Your task to perform on an android device: Open Google Maps and go to "Timeline" Image 0: 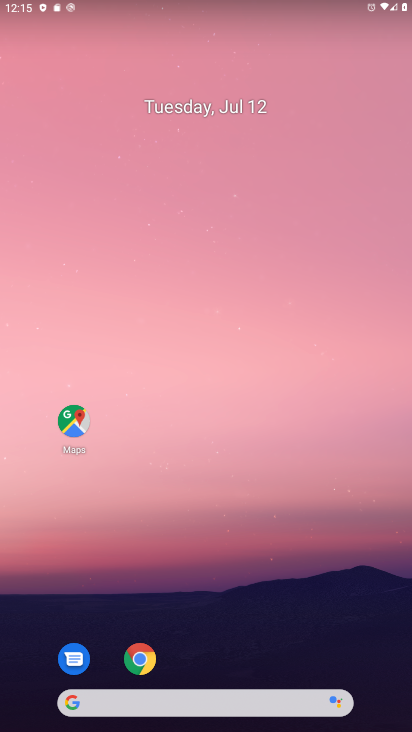
Step 0: drag from (237, 253) to (239, 214)
Your task to perform on an android device: Open Google Maps and go to "Timeline" Image 1: 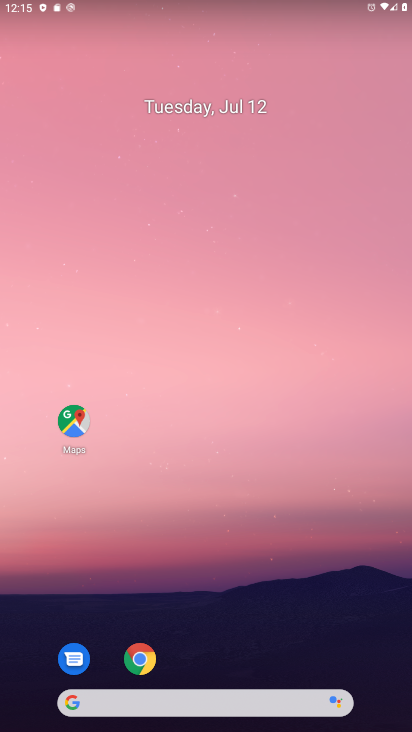
Step 1: click (73, 410)
Your task to perform on an android device: Open Google Maps and go to "Timeline" Image 2: 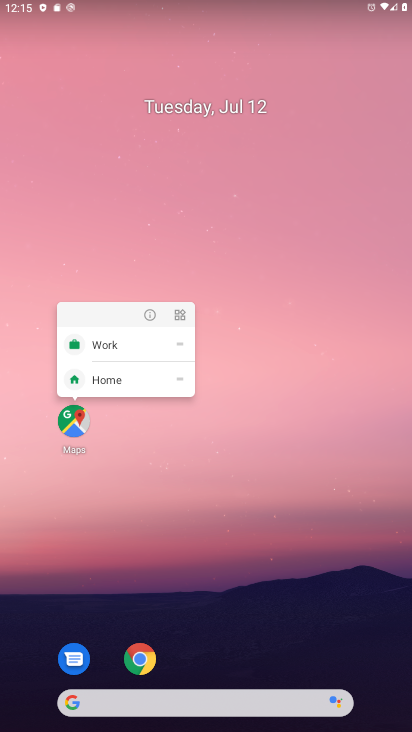
Step 2: click (147, 312)
Your task to perform on an android device: Open Google Maps and go to "Timeline" Image 3: 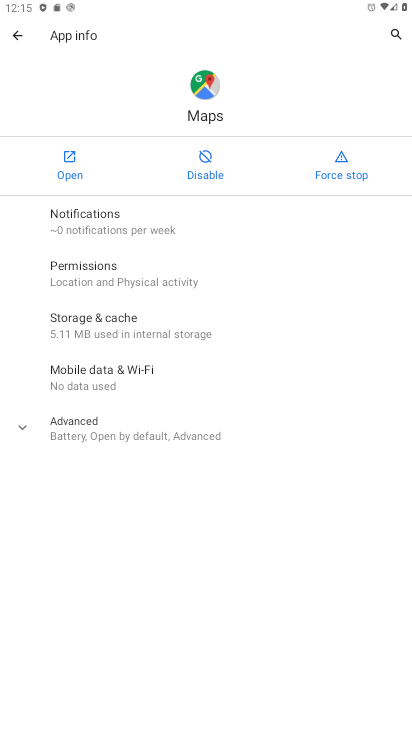
Step 3: click (63, 163)
Your task to perform on an android device: Open Google Maps and go to "Timeline" Image 4: 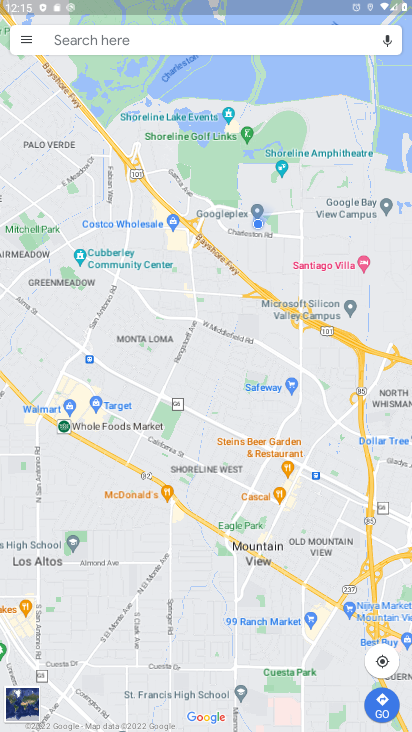
Step 4: click (24, 45)
Your task to perform on an android device: Open Google Maps and go to "Timeline" Image 5: 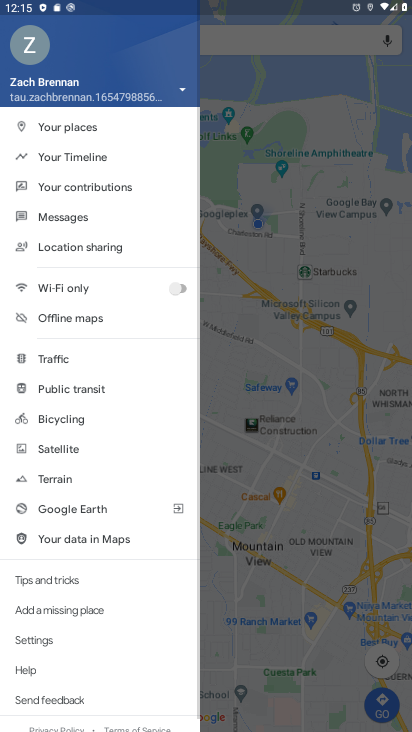
Step 5: drag from (69, 462) to (112, 106)
Your task to perform on an android device: Open Google Maps and go to "Timeline" Image 6: 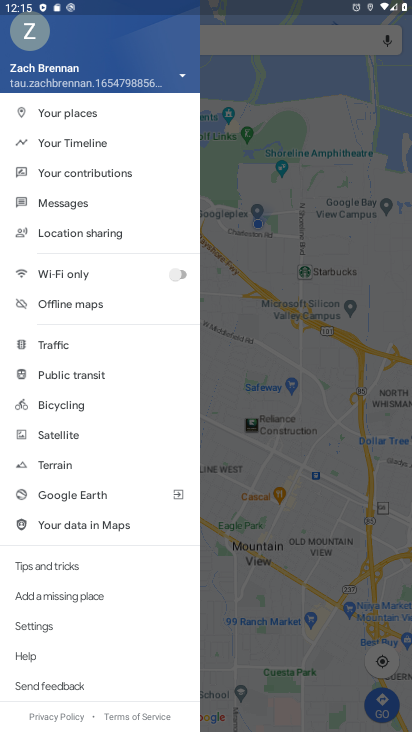
Step 6: click (86, 143)
Your task to perform on an android device: Open Google Maps and go to "Timeline" Image 7: 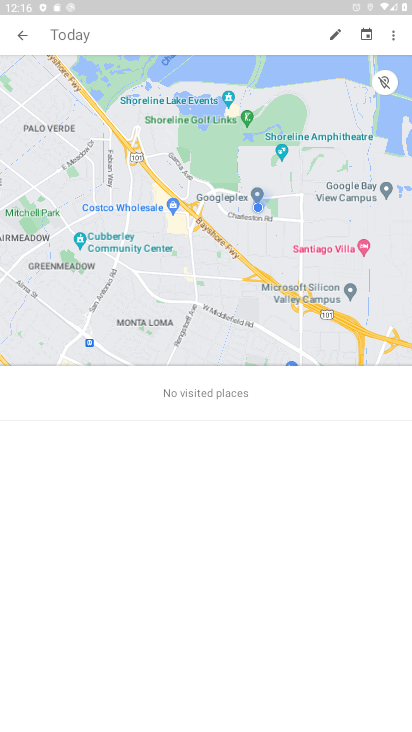
Step 7: click (33, 33)
Your task to perform on an android device: Open Google Maps and go to "Timeline" Image 8: 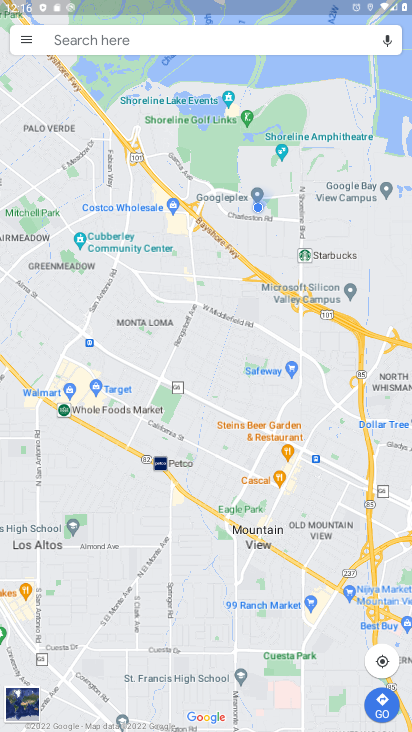
Step 8: click (26, 47)
Your task to perform on an android device: Open Google Maps and go to "Timeline" Image 9: 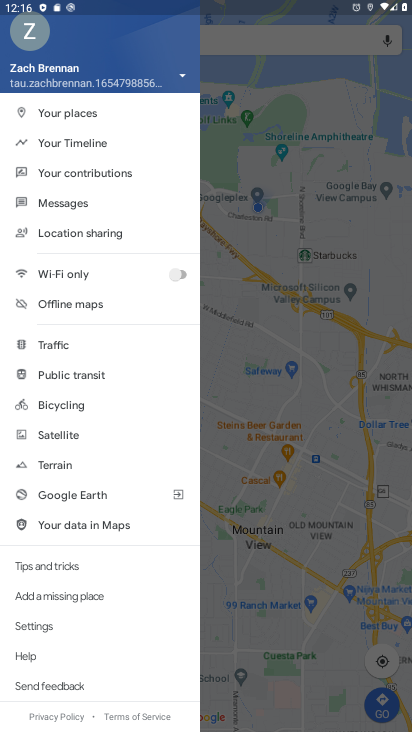
Step 9: click (101, 141)
Your task to perform on an android device: Open Google Maps and go to "Timeline" Image 10: 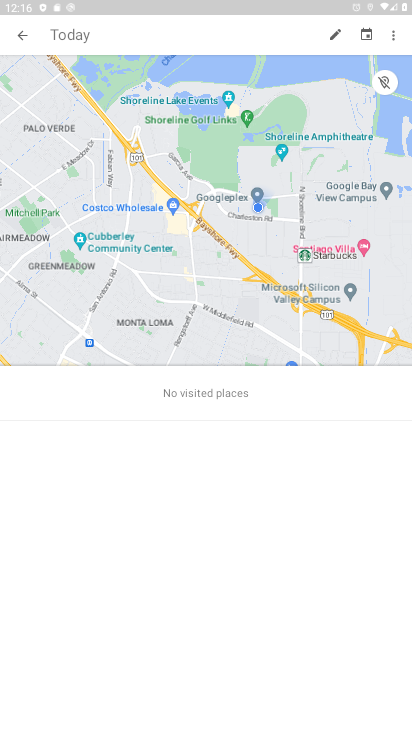
Step 10: drag from (260, 550) to (291, 219)
Your task to perform on an android device: Open Google Maps and go to "Timeline" Image 11: 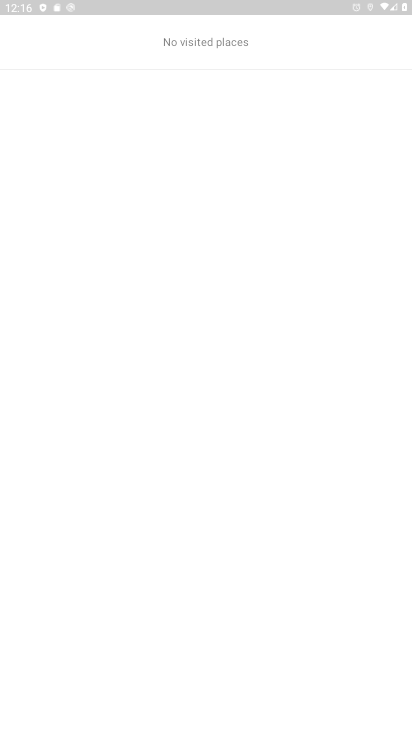
Step 11: press back button
Your task to perform on an android device: Open Google Maps and go to "Timeline" Image 12: 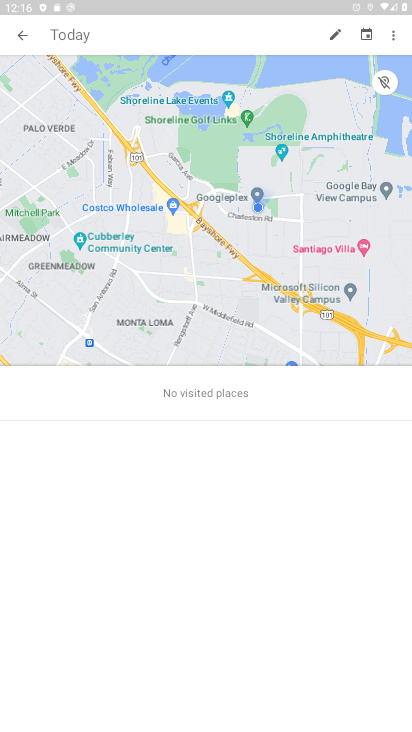
Step 12: press back button
Your task to perform on an android device: Open Google Maps and go to "Timeline" Image 13: 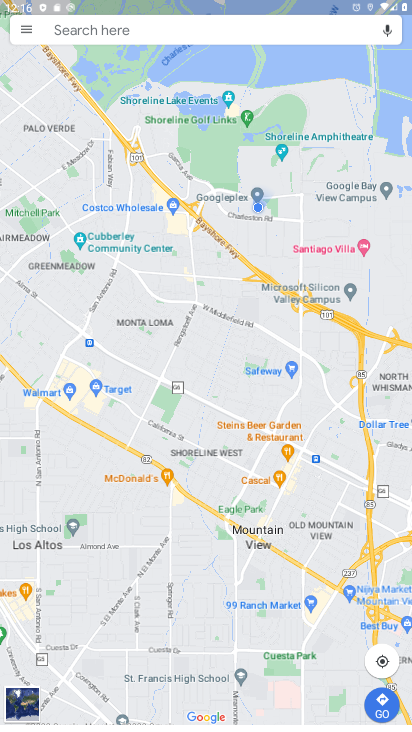
Step 13: drag from (202, 451) to (223, 151)
Your task to perform on an android device: Open Google Maps and go to "Timeline" Image 14: 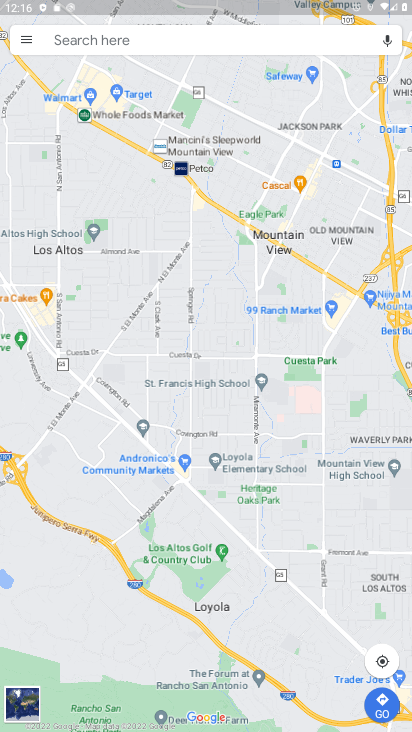
Step 14: click (31, 43)
Your task to perform on an android device: Open Google Maps and go to "Timeline" Image 15: 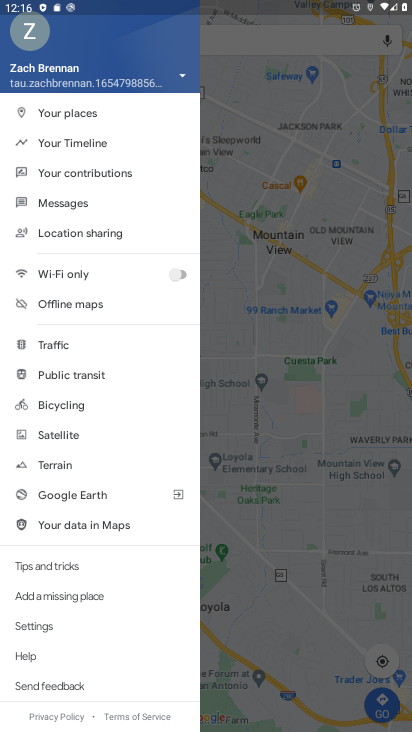
Step 15: click (100, 144)
Your task to perform on an android device: Open Google Maps and go to "Timeline" Image 16: 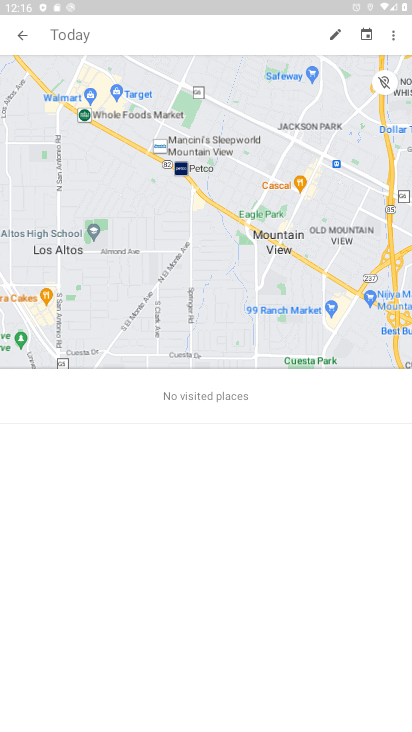
Step 16: task complete